Your task to perform on an android device: Search for pizza restaurants on Maps Image 0: 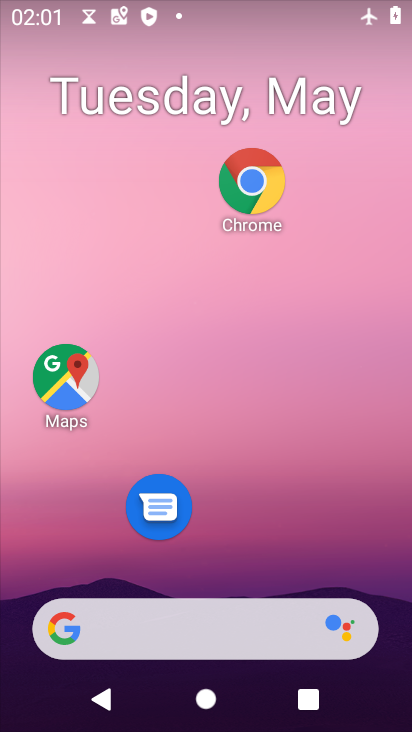
Step 0: drag from (222, 523) to (245, 275)
Your task to perform on an android device: Search for pizza restaurants on Maps Image 1: 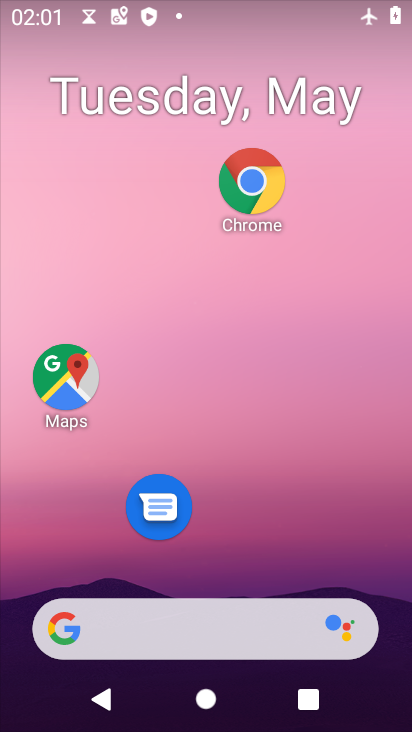
Step 1: click (53, 382)
Your task to perform on an android device: Search for pizza restaurants on Maps Image 2: 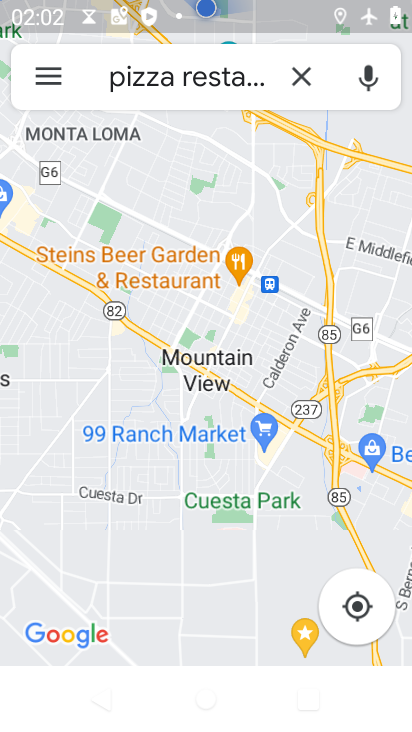
Step 2: task complete